Your task to perform on an android device: set the stopwatch Image 0: 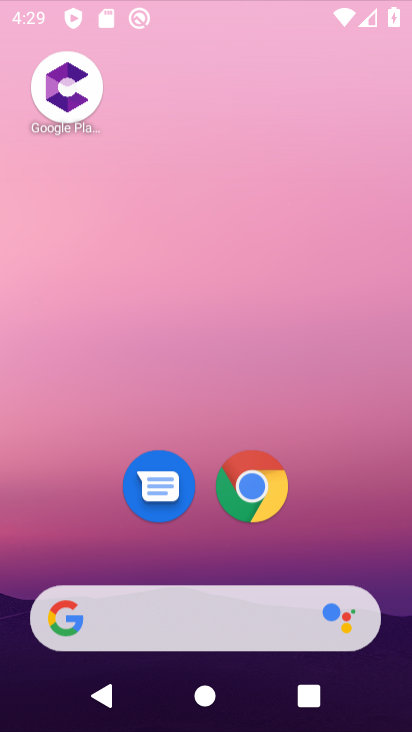
Step 0: drag from (395, 563) to (316, 126)
Your task to perform on an android device: set the stopwatch Image 1: 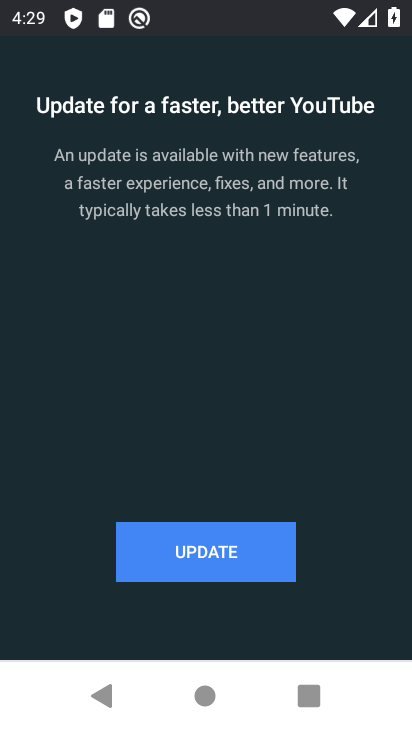
Step 1: press home button
Your task to perform on an android device: set the stopwatch Image 2: 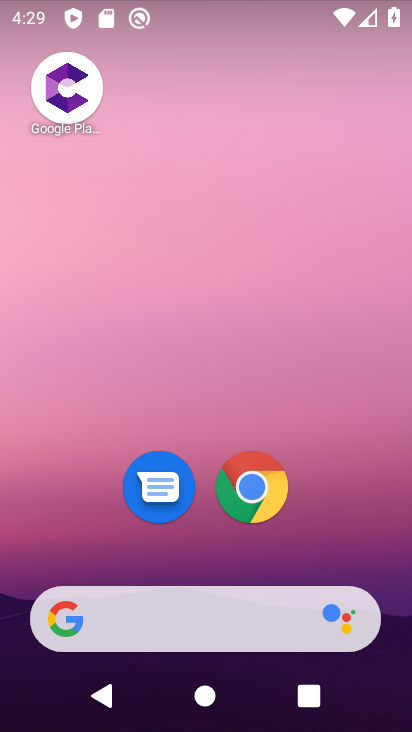
Step 2: drag from (396, 630) to (298, 122)
Your task to perform on an android device: set the stopwatch Image 3: 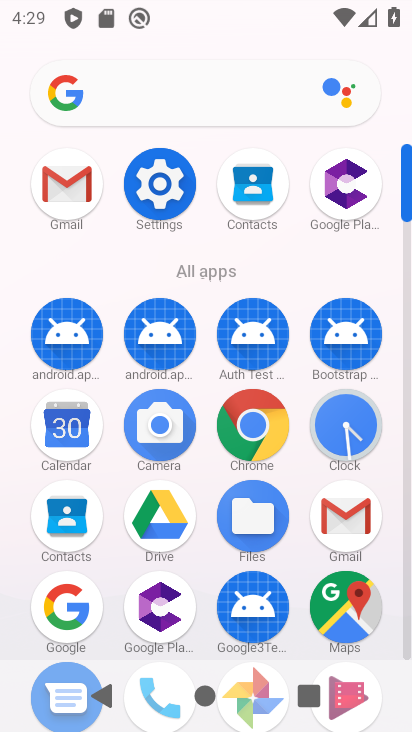
Step 3: click (408, 633)
Your task to perform on an android device: set the stopwatch Image 4: 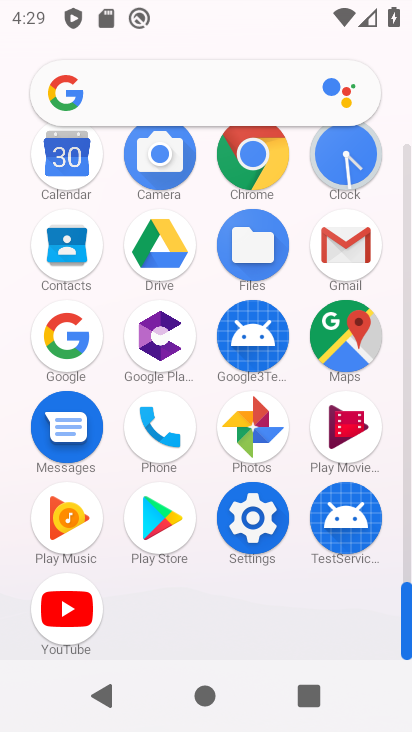
Step 4: click (345, 158)
Your task to perform on an android device: set the stopwatch Image 5: 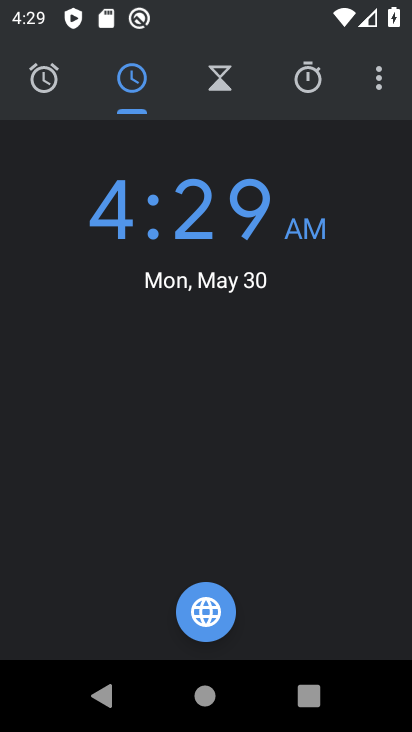
Step 5: click (309, 82)
Your task to perform on an android device: set the stopwatch Image 6: 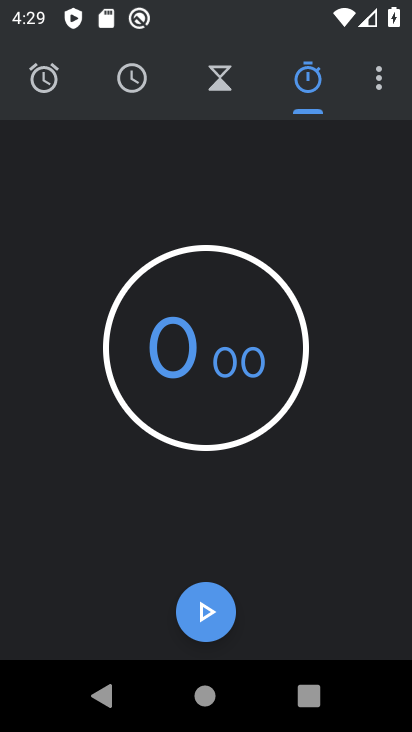
Step 6: task complete